Your task to perform on an android device: Open Youtube and go to the subscriptions tab Image 0: 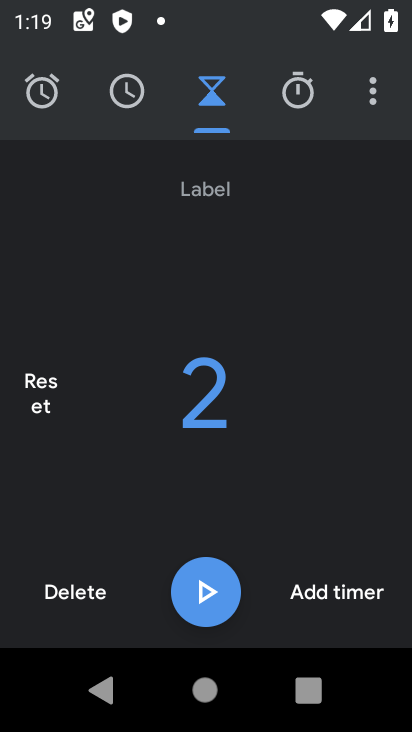
Step 0: press home button
Your task to perform on an android device: Open Youtube and go to the subscriptions tab Image 1: 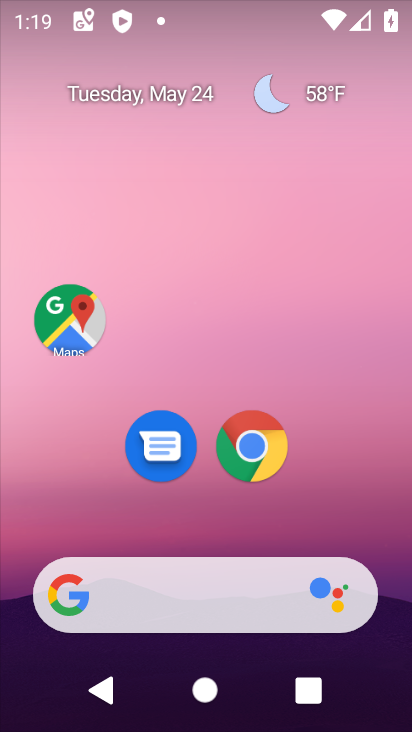
Step 1: drag from (130, 727) to (162, 168)
Your task to perform on an android device: Open Youtube and go to the subscriptions tab Image 2: 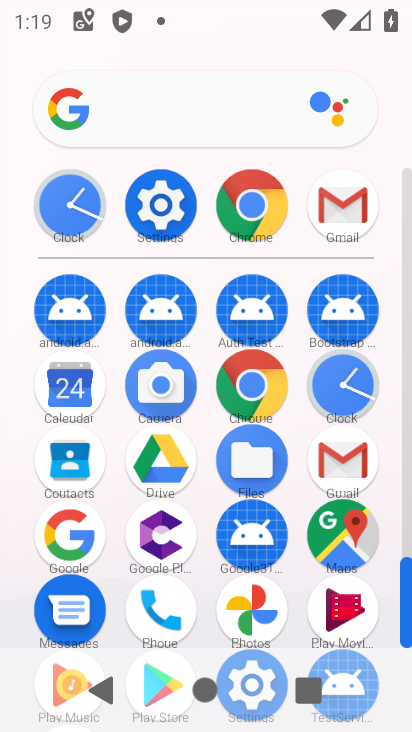
Step 2: drag from (264, 491) to (263, 145)
Your task to perform on an android device: Open Youtube and go to the subscriptions tab Image 3: 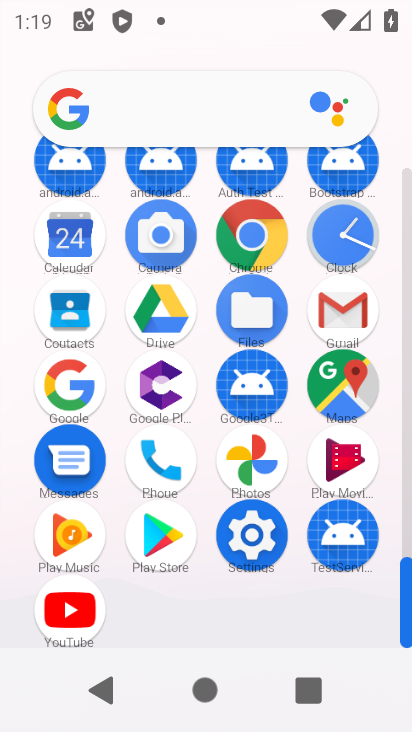
Step 3: click (93, 618)
Your task to perform on an android device: Open Youtube and go to the subscriptions tab Image 4: 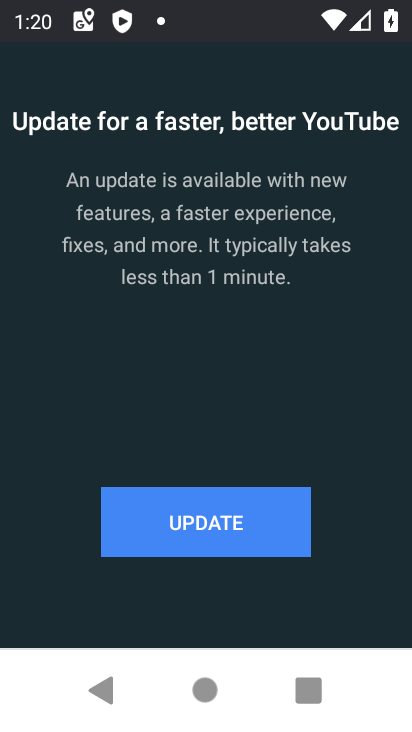
Step 4: press back button
Your task to perform on an android device: Open Youtube and go to the subscriptions tab Image 5: 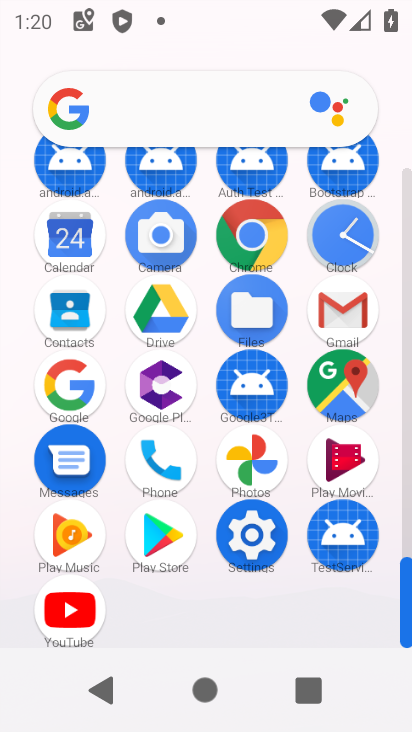
Step 5: click (72, 610)
Your task to perform on an android device: Open Youtube and go to the subscriptions tab Image 6: 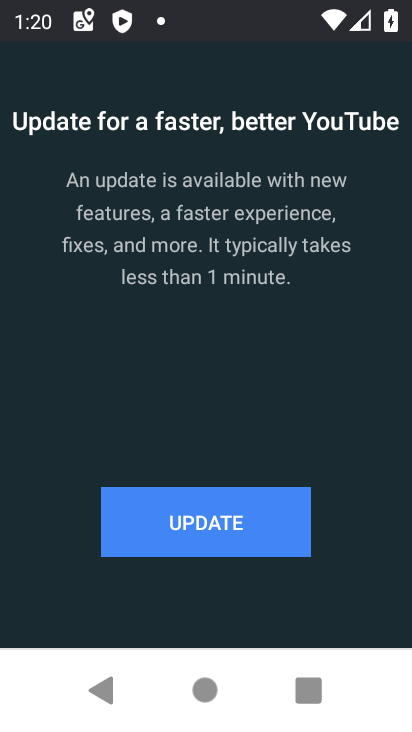
Step 6: click (275, 485)
Your task to perform on an android device: Open Youtube and go to the subscriptions tab Image 7: 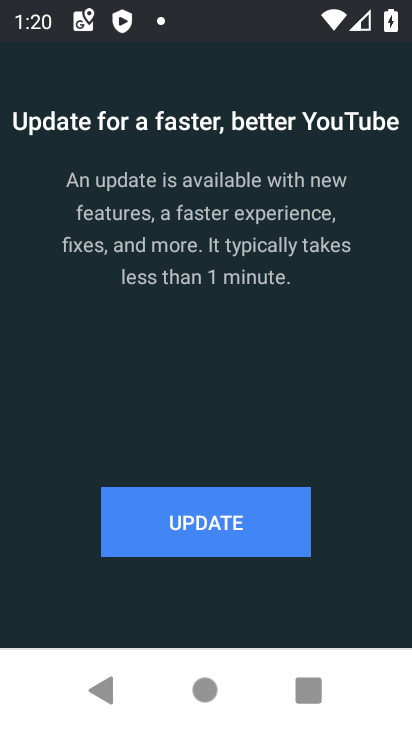
Step 7: click (250, 536)
Your task to perform on an android device: Open Youtube and go to the subscriptions tab Image 8: 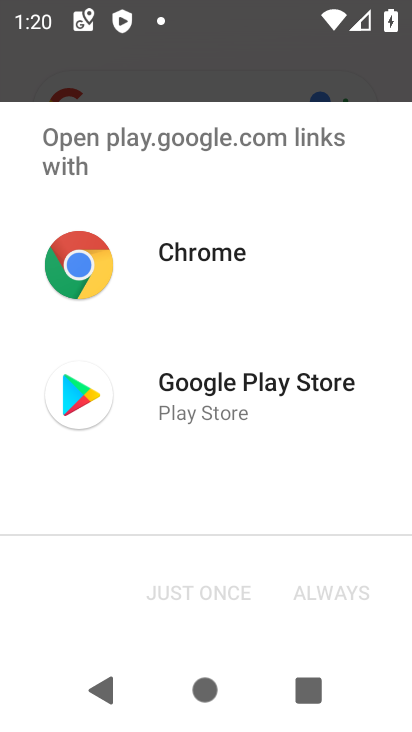
Step 8: click (191, 435)
Your task to perform on an android device: Open Youtube and go to the subscriptions tab Image 9: 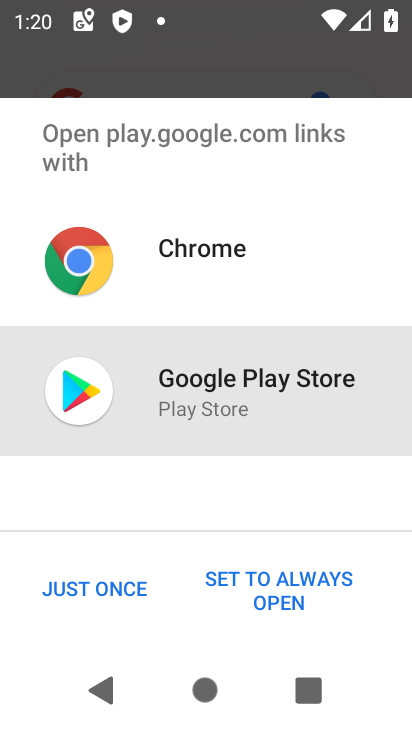
Step 9: click (90, 599)
Your task to perform on an android device: Open Youtube and go to the subscriptions tab Image 10: 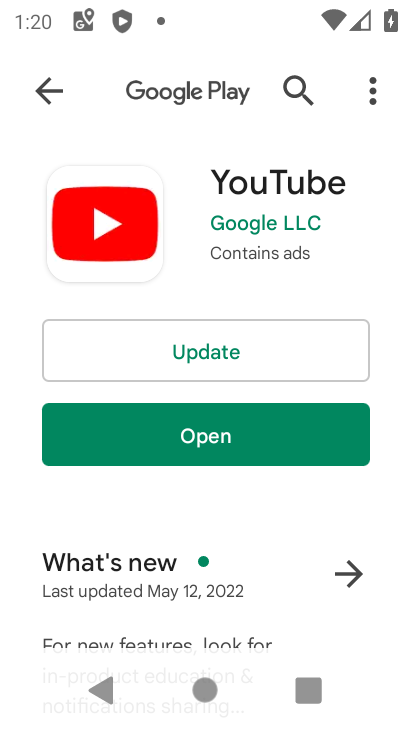
Step 10: click (245, 365)
Your task to perform on an android device: Open Youtube and go to the subscriptions tab Image 11: 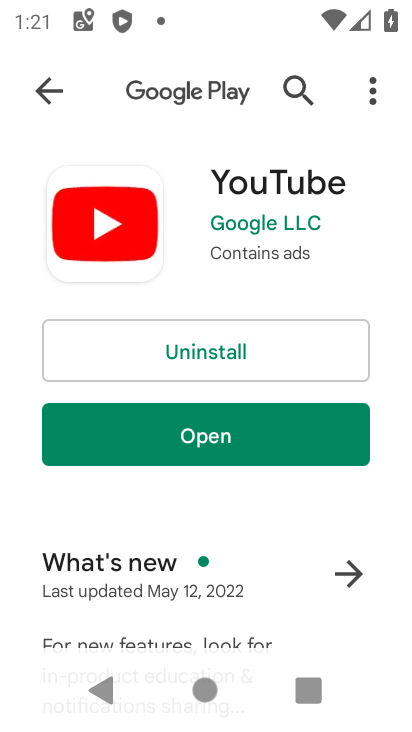
Step 11: click (261, 451)
Your task to perform on an android device: Open Youtube and go to the subscriptions tab Image 12: 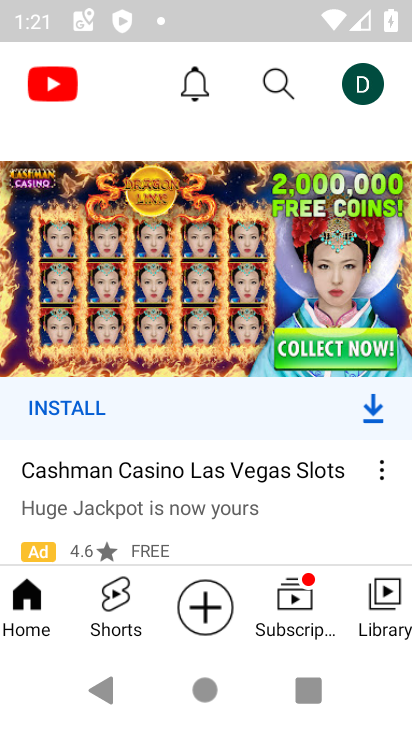
Step 12: click (287, 625)
Your task to perform on an android device: Open Youtube and go to the subscriptions tab Image 13: 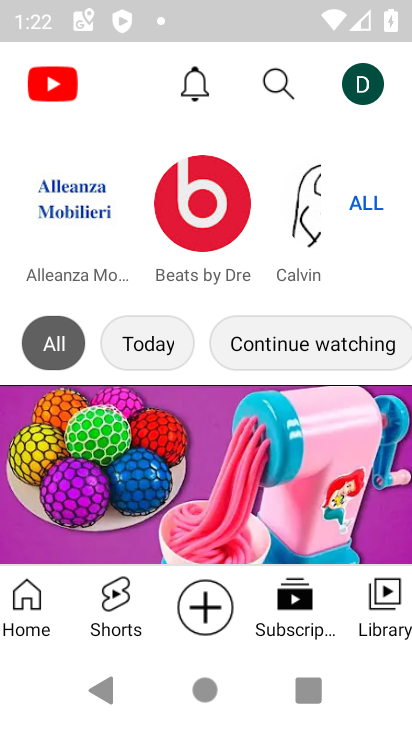
Step 13: task complete